Your task to perform on an android device: delete a single message in the gmail app Image 0: 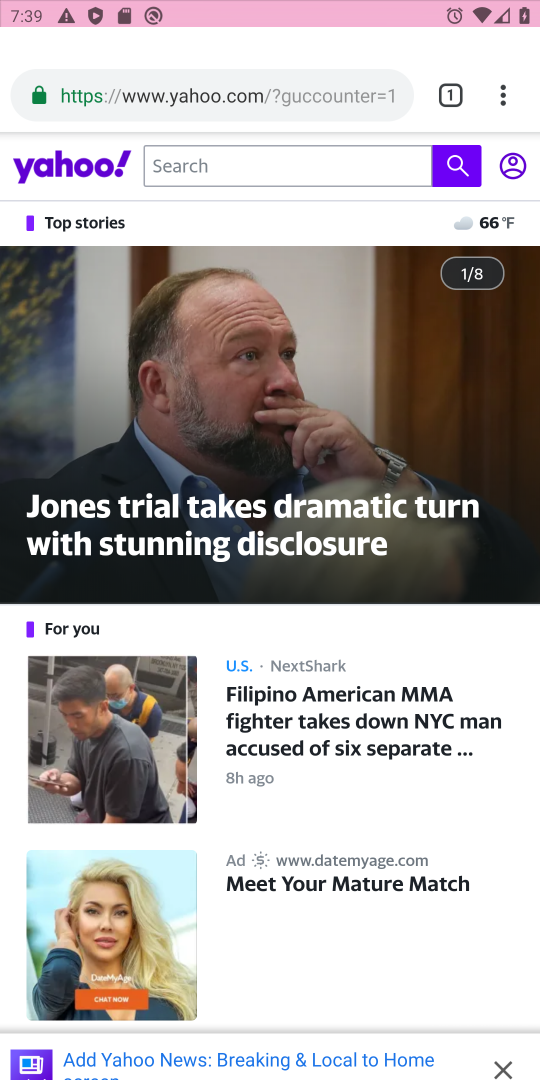
Step 0: press home button
Your task to perform on an android device: delete a single message in the gmail app Image 1: 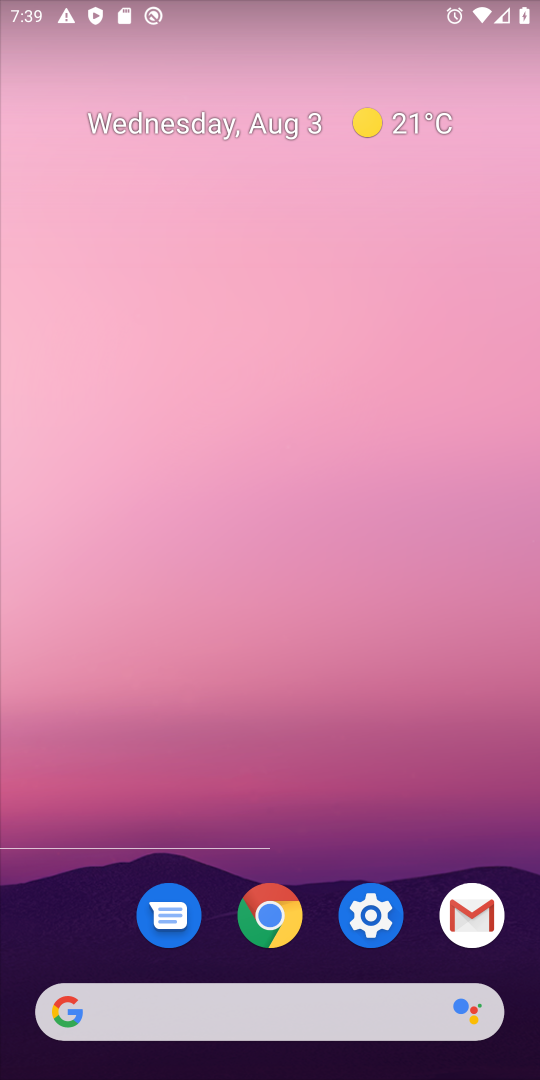
Step 1: click (210, 1016)
Your task to perform on an android device: delete a single message in the gmail app Image 2: 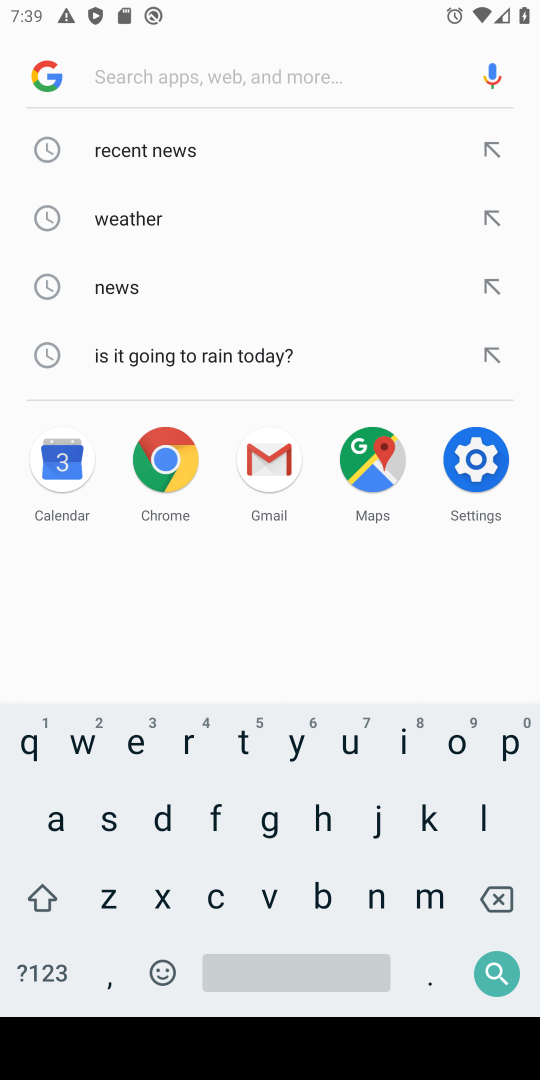
Step 2: click (274, 469)
Your task to perform on an android device: delete a single message in the gmail app Image 3: 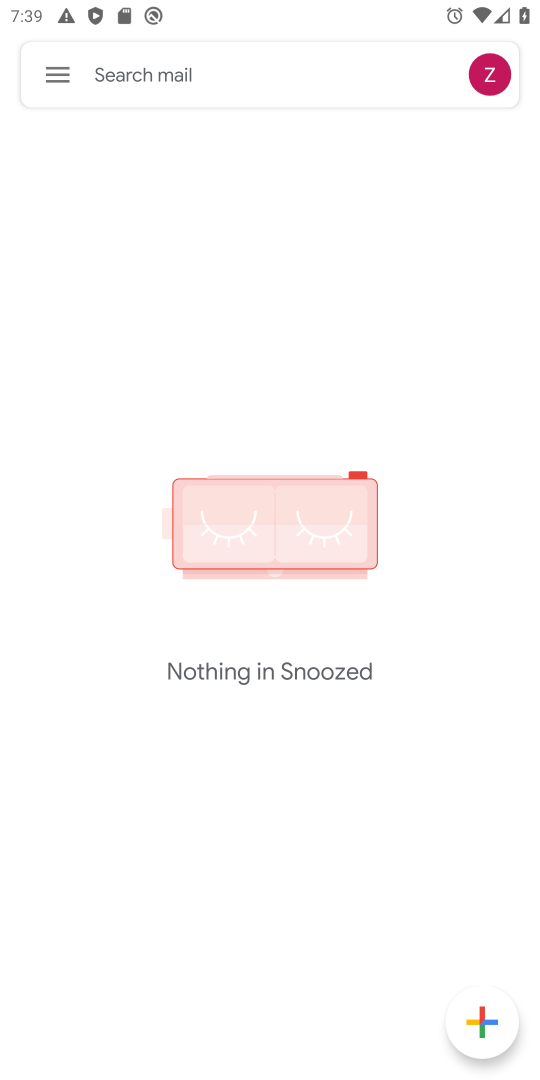
Step 3: click (63, 80)
Your task to perform on an android device: delete a single message in the gmail app Image 4: 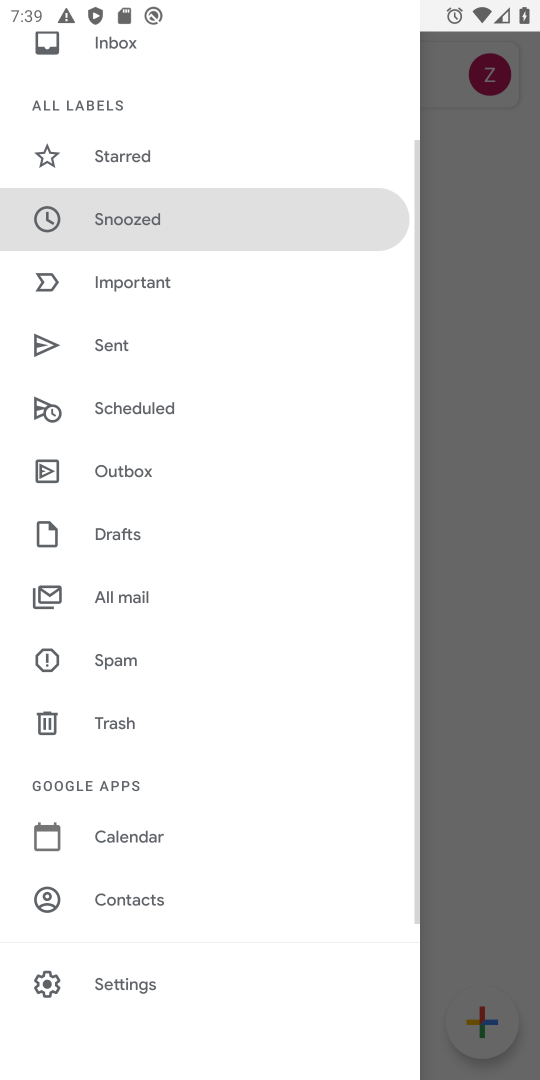
Step 4: click (133, 604)
Your task to perform on an android device: delete a single message in the gmail app Image 5: 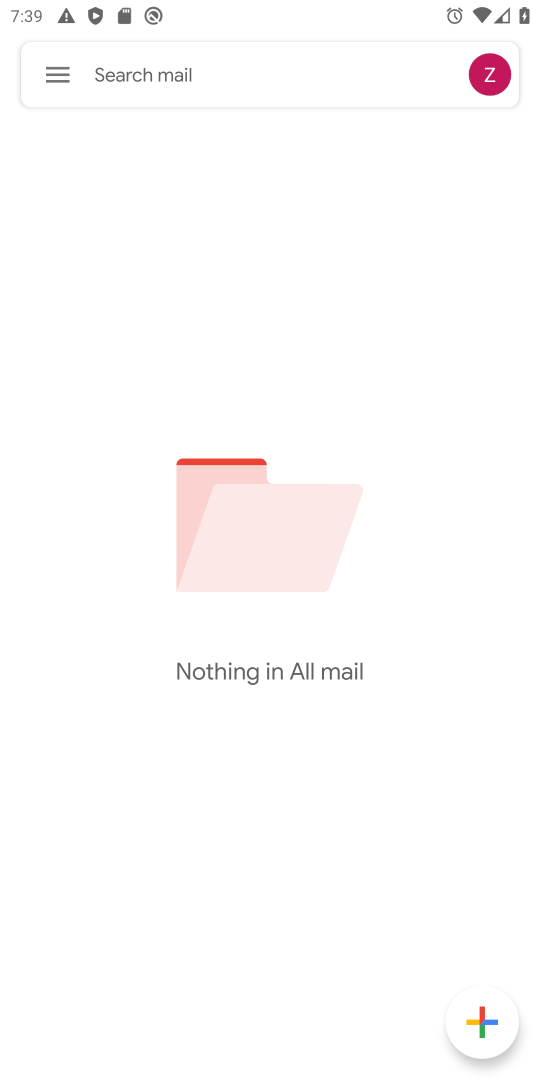
Step 5: task complete